Your task to perform on an android device: change the clock display to digital Image 0: 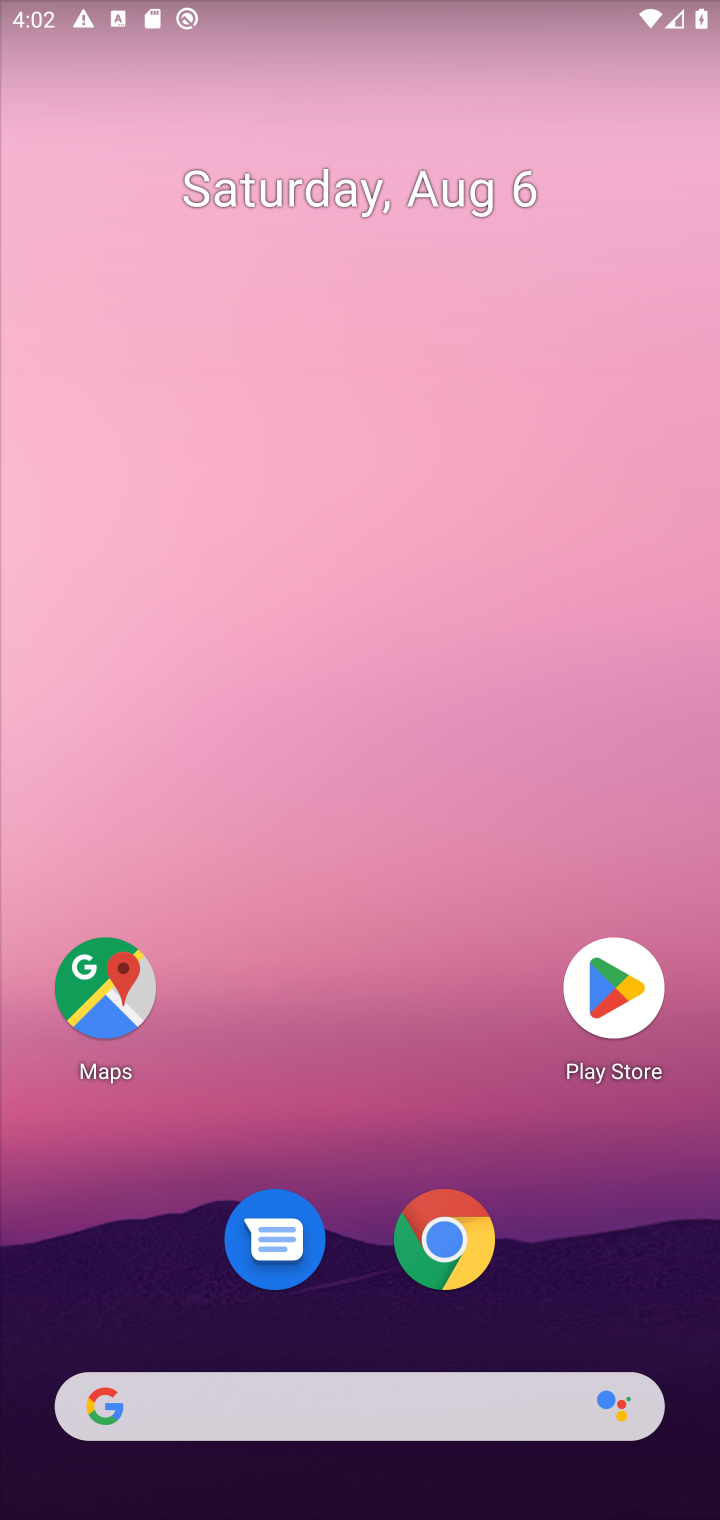
Step 0: drag from (502, 1391) to (603, 74)
Your task to perform on an android device: change the clock display to digital Image 1: 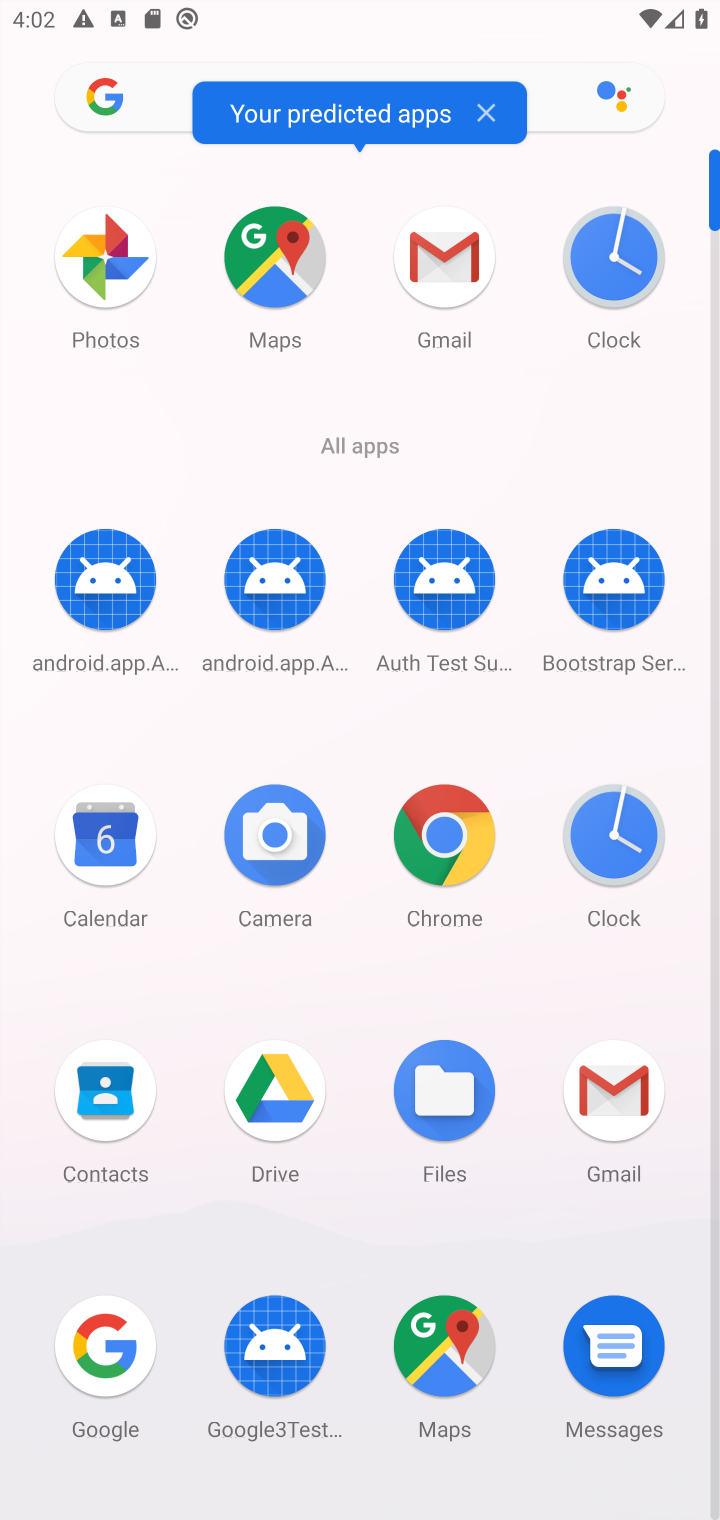
Step 1: click (596, 847)
Your task to perform on an android device: change the clock display to digital Image 2: 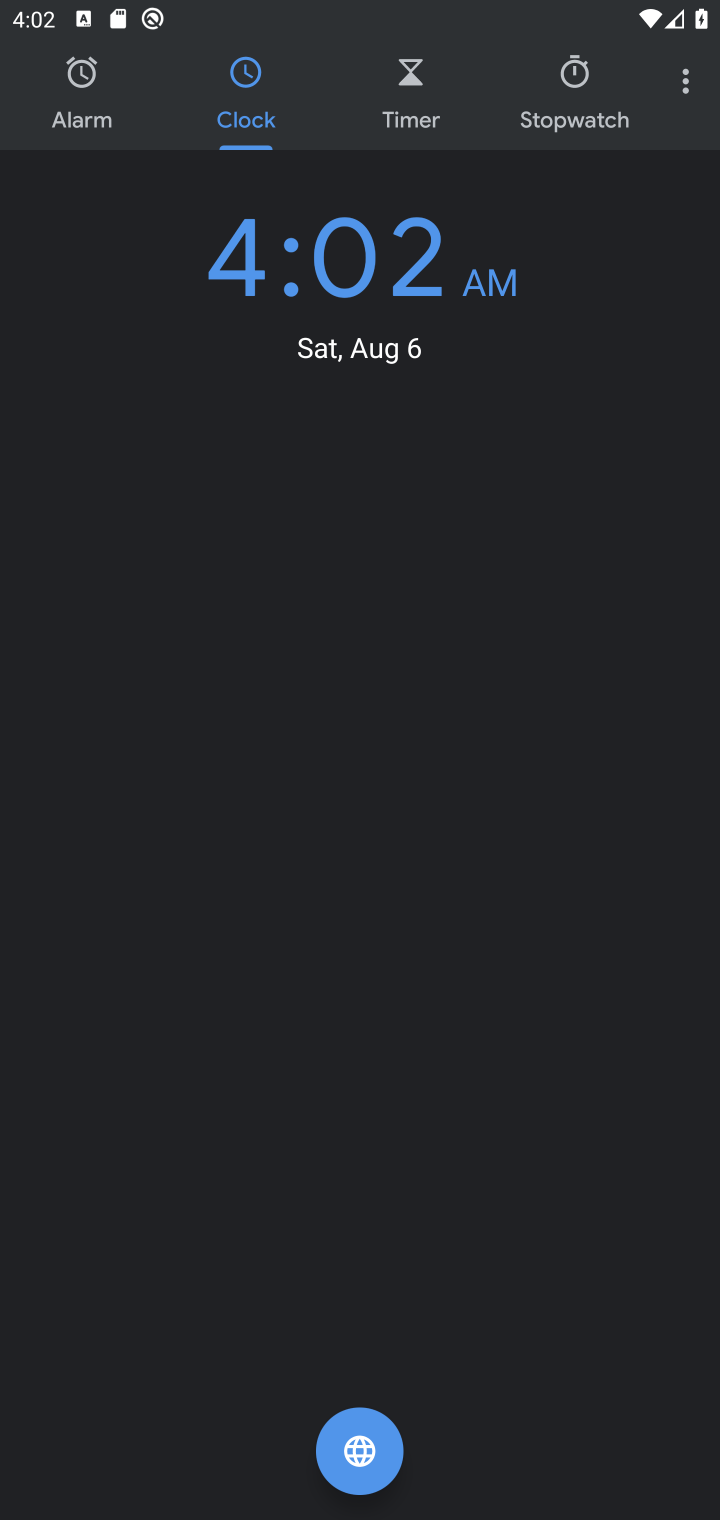
Step 2: click (685, 98)
Your task to perform on an android device: change the clock display to digital Image 3: 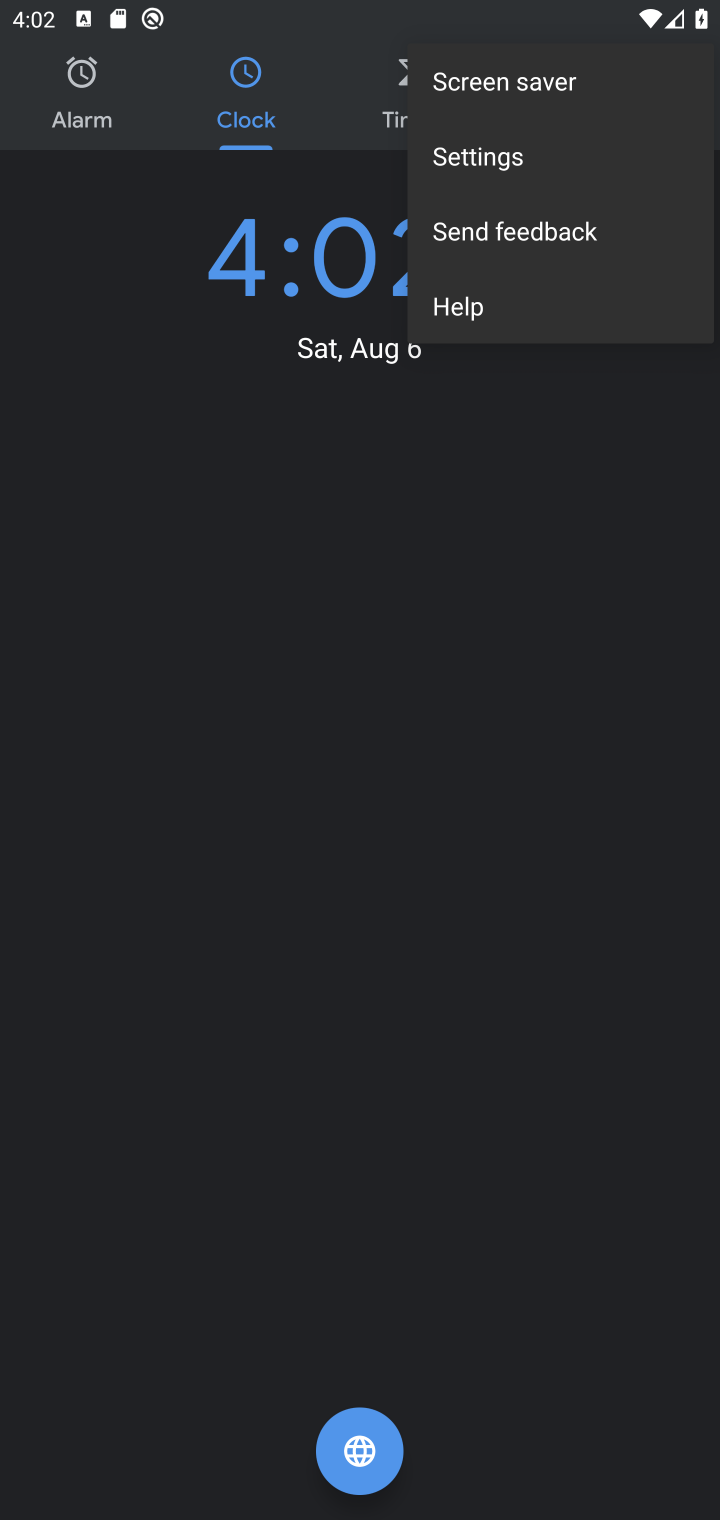
Step 3: click (536, 160)
Your task to perform on an android device: change the clock display to digital Image 4: 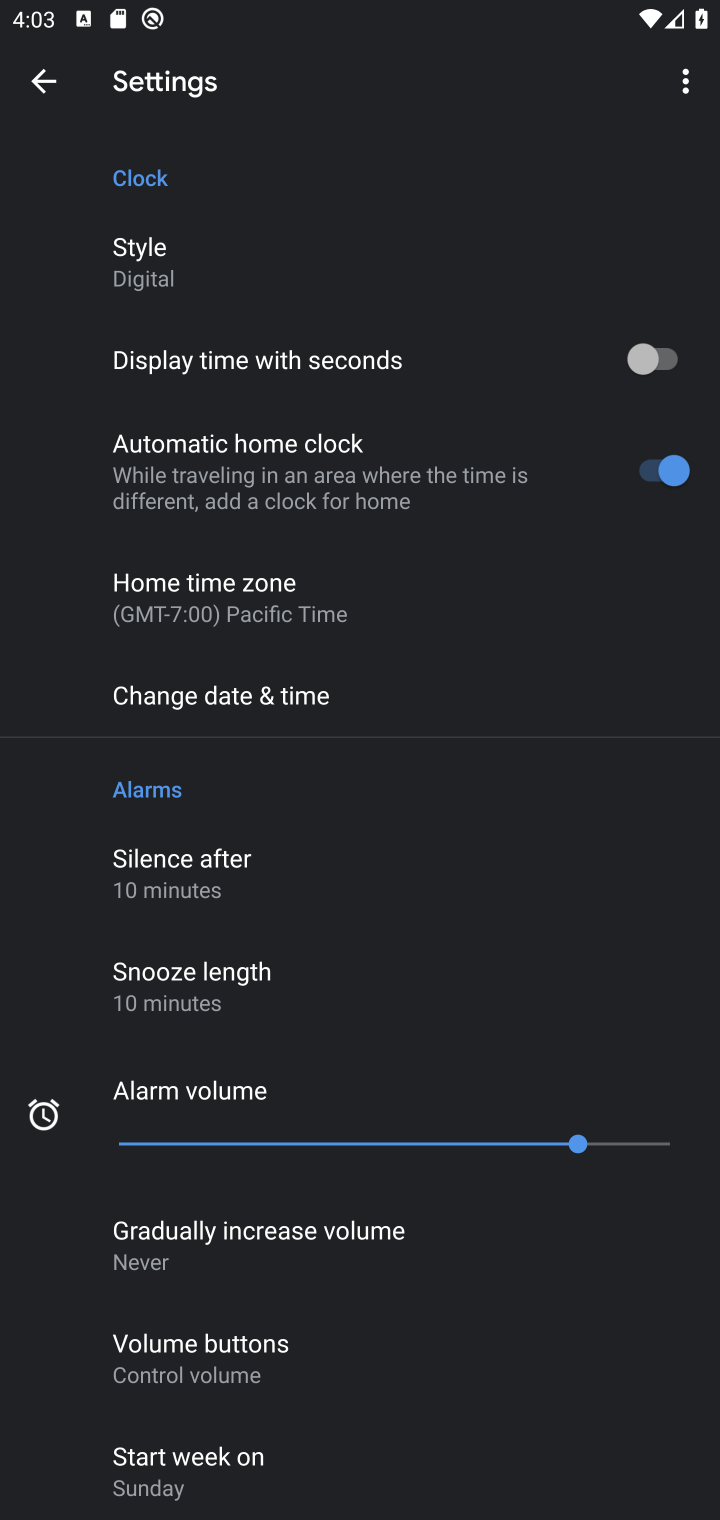
Step 4: click (160, 298)
Your task to perform on an android device: change the clock display to digital Image 5: 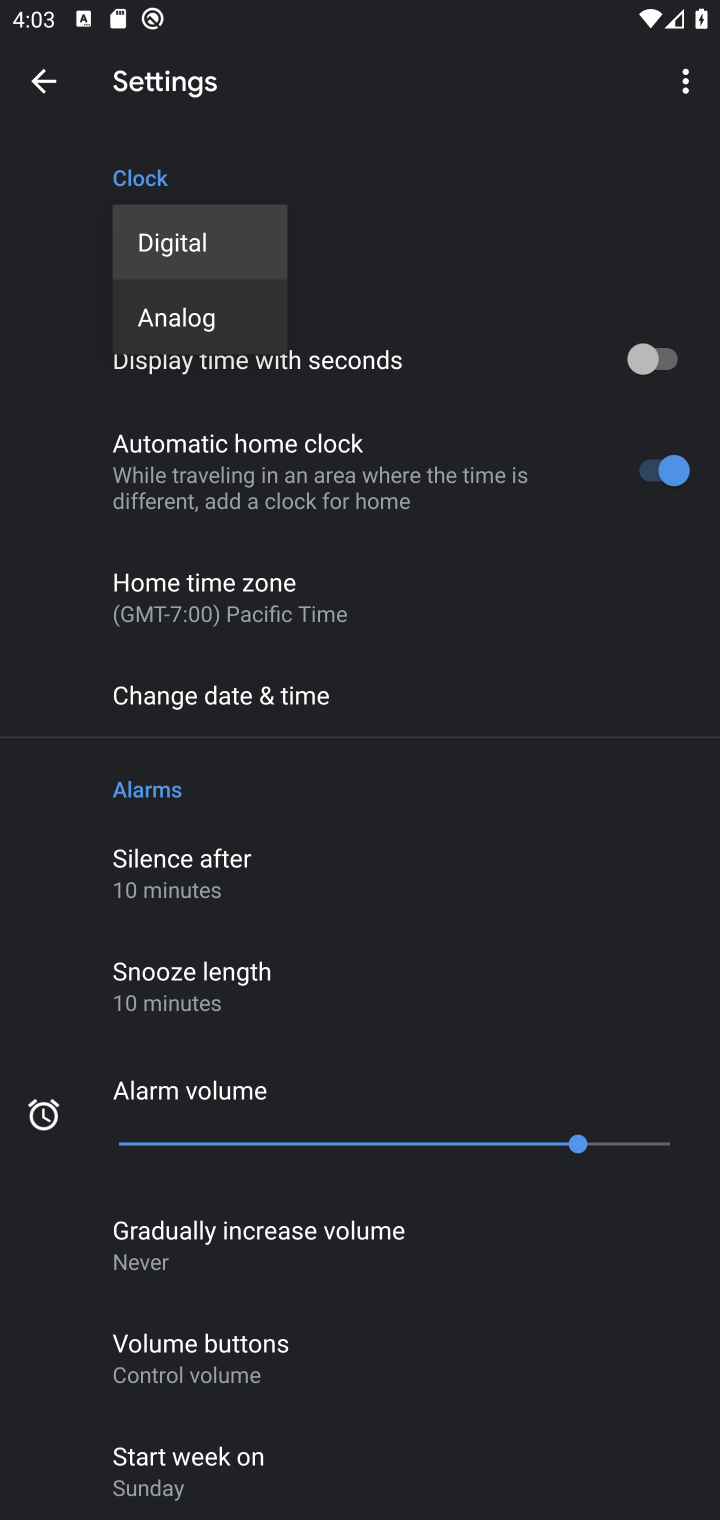
Step 5: click (173, 326)
Your task to perform on an android device: change the clock display to digital Image 6: 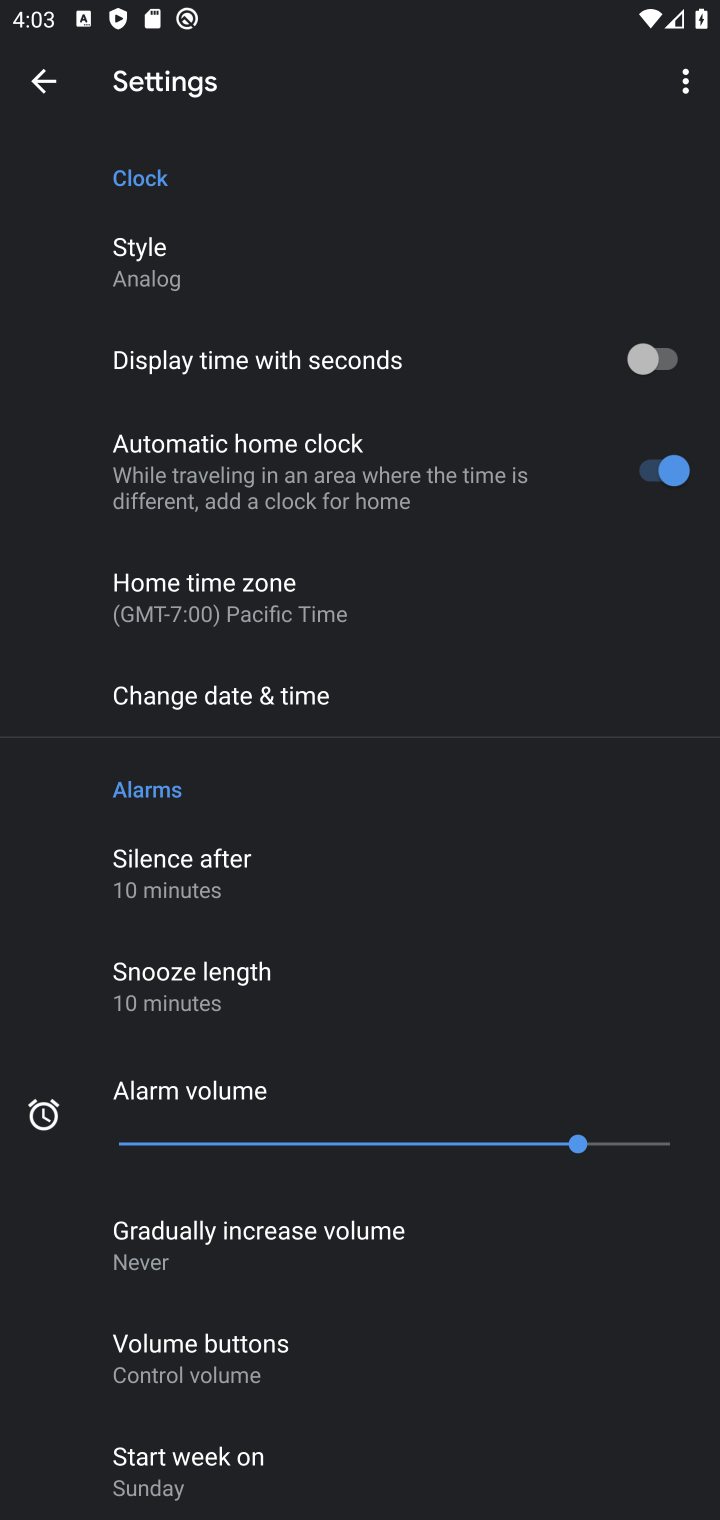
Step 6: task complete